Your task to perform on an android device: Open Maps and search for coffee Image 0: 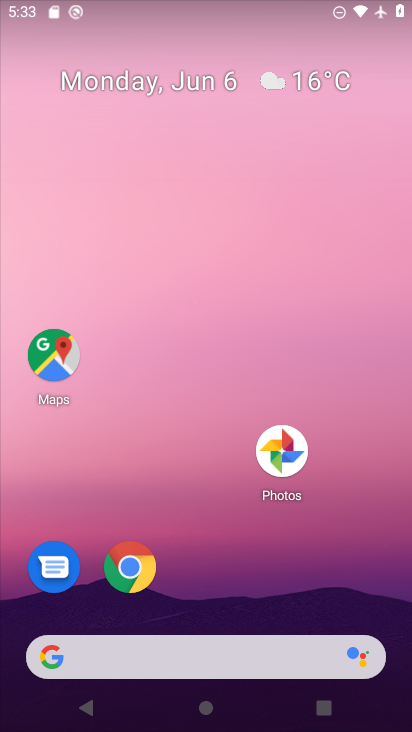
Step 0: drag from (258, 679) to (158, 269)
Your task to perform on an android device: Open Maps and search for coffee Image 1: 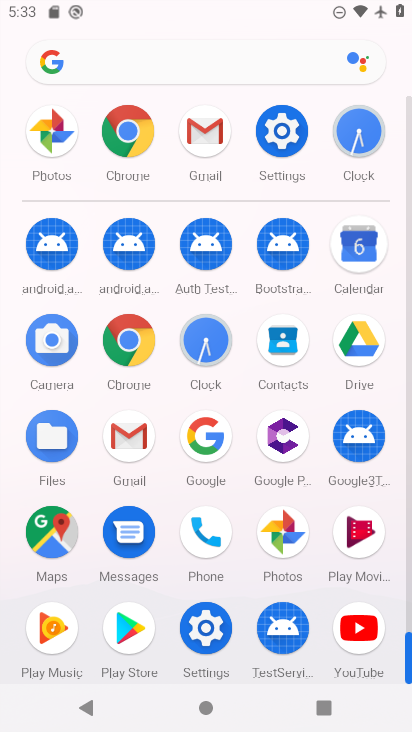
Step 1: click (54, 528)
Your task to perform on an android device: Open Maps and search for coffee Image 2: 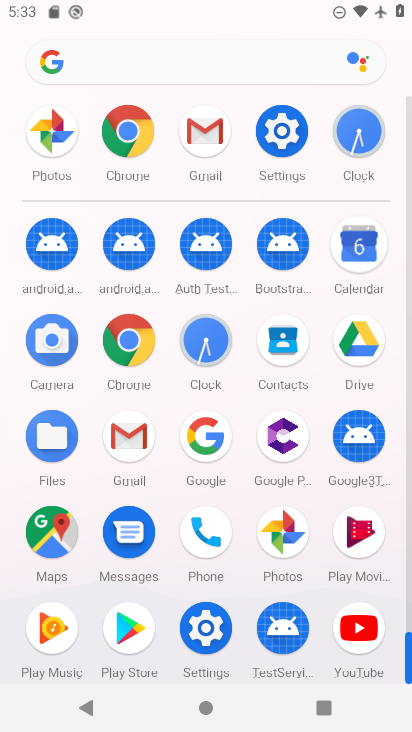
Step 2: click (51, 533)
Your task to perform on an android device: Open Maps and search for coffee Image 3: 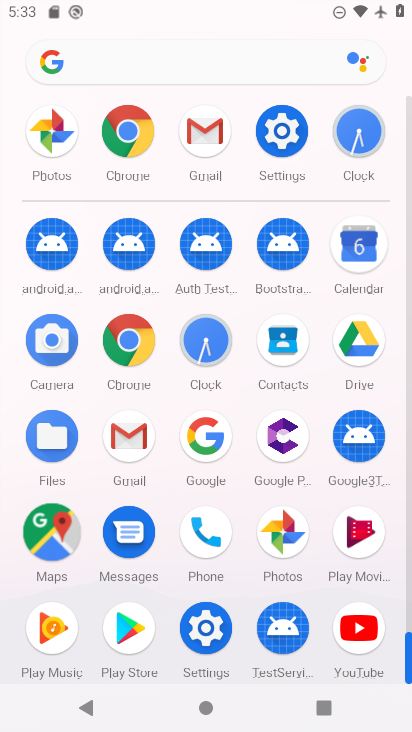
Step 3: click (53, 527)
Your task to perform on an android device: Open Maps and search for coffee Image 4: 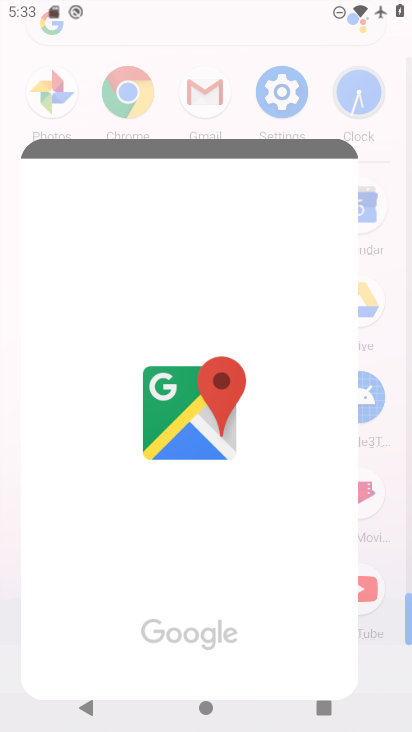
Step 4: click (55, 523)
Your task to perform on an android device: Open Maps and search for coffee Image 5: 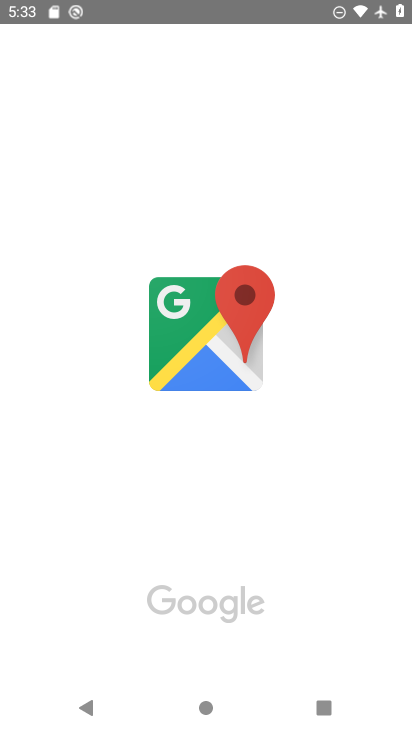
Step 5: click (56, 520)
Your task to perform on an android device: Open Maps and search for coffee Image 6: 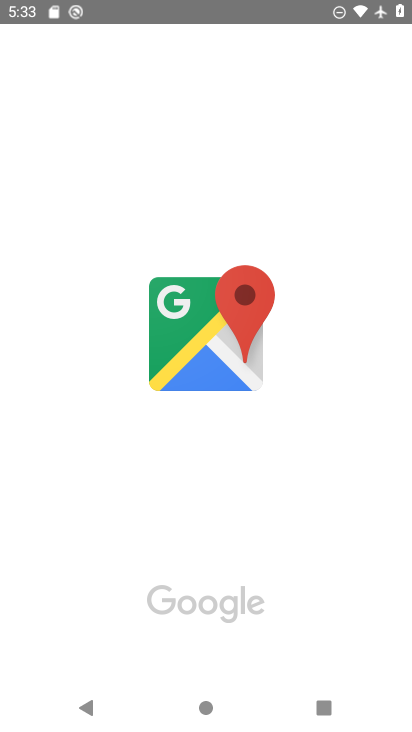
Step 6: click (53, 517)
Your task to perform on an android device: Open Maps and search for coffee Image 7: 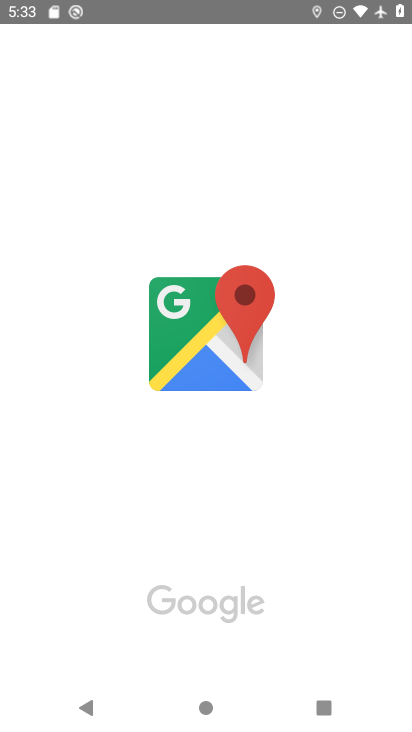
Step 7: click (47, 520)
Your task to perform on an android device: Open Maps and search for coffee Image 8: 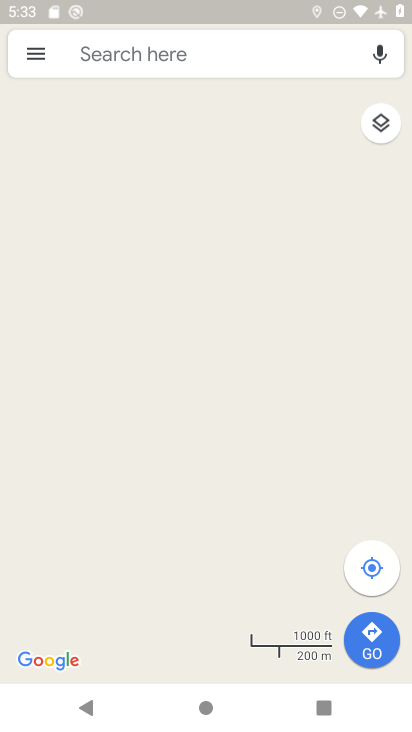
Step 8: click (69, 49)
Your task to perform on an android device: Open Maps and search for coffee Image 9: 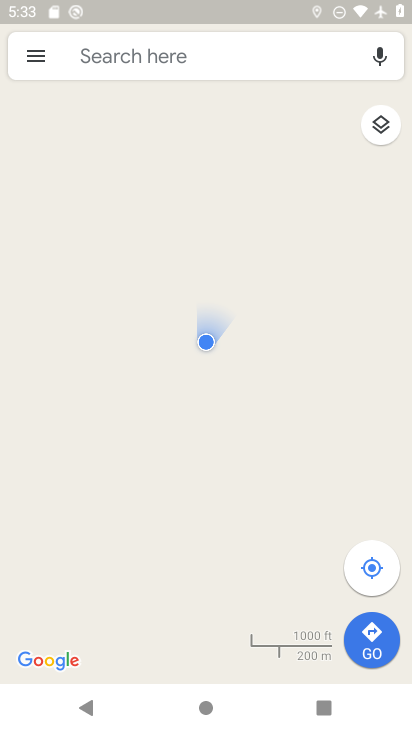
Step 9: click (121, 60)
Your task to perform on an android device: Open Maps and search for coffee Image 10: 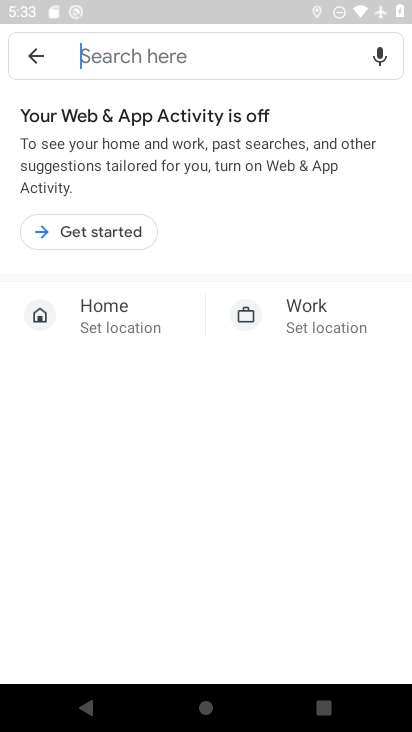
Step 10: type "coffee"
Your task to perform on an android device: Open Maps and search for coffee Image 11: 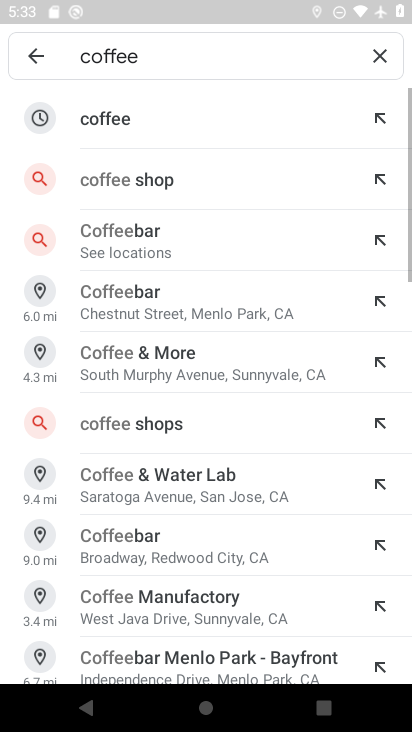
Step 11: task complete